Your task to perform on an android device: Search for macbook pro 15 inch on target, select the first entry, add it to the cart, then select checkout. Image 0: 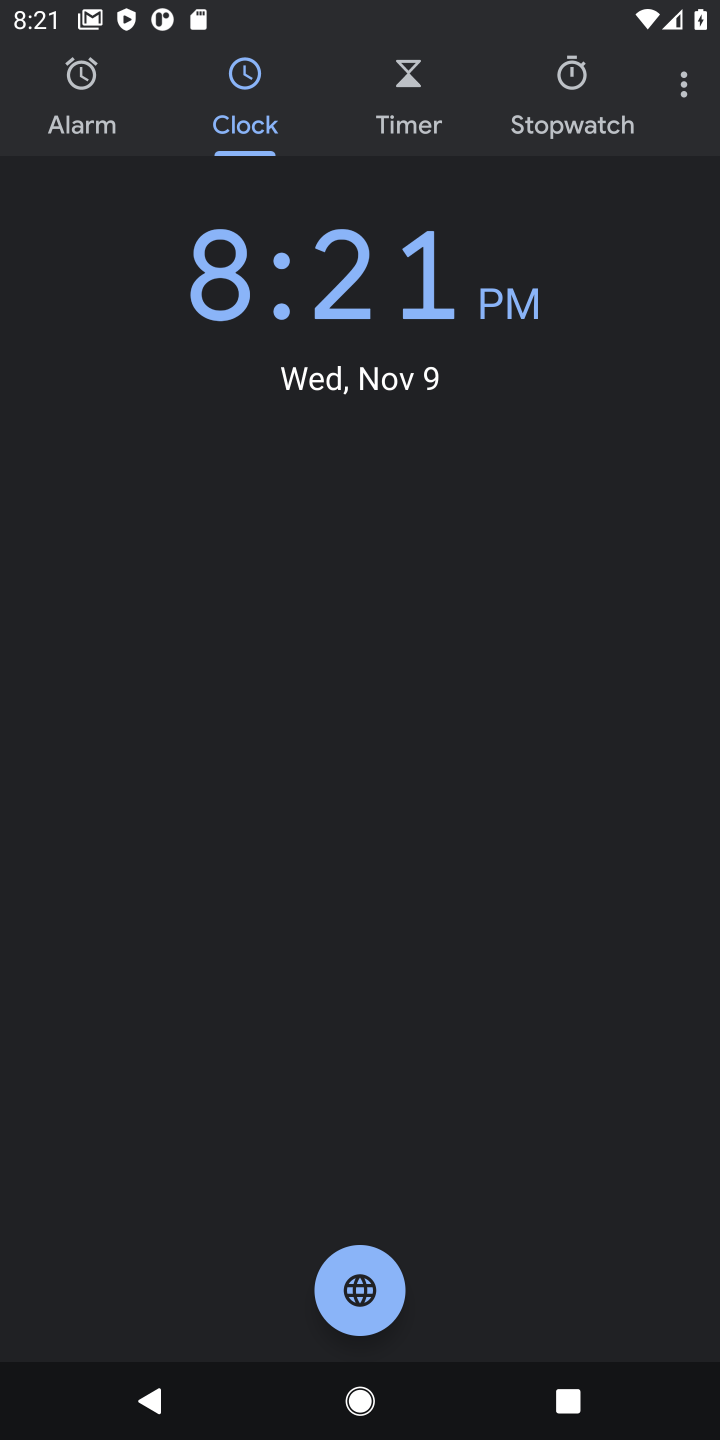
Step 0: press home button
Your task to perform on an android device: Search for macbook pro 15 inch on target, select the first entry, add it to the cart, then select checkout. Image 1: 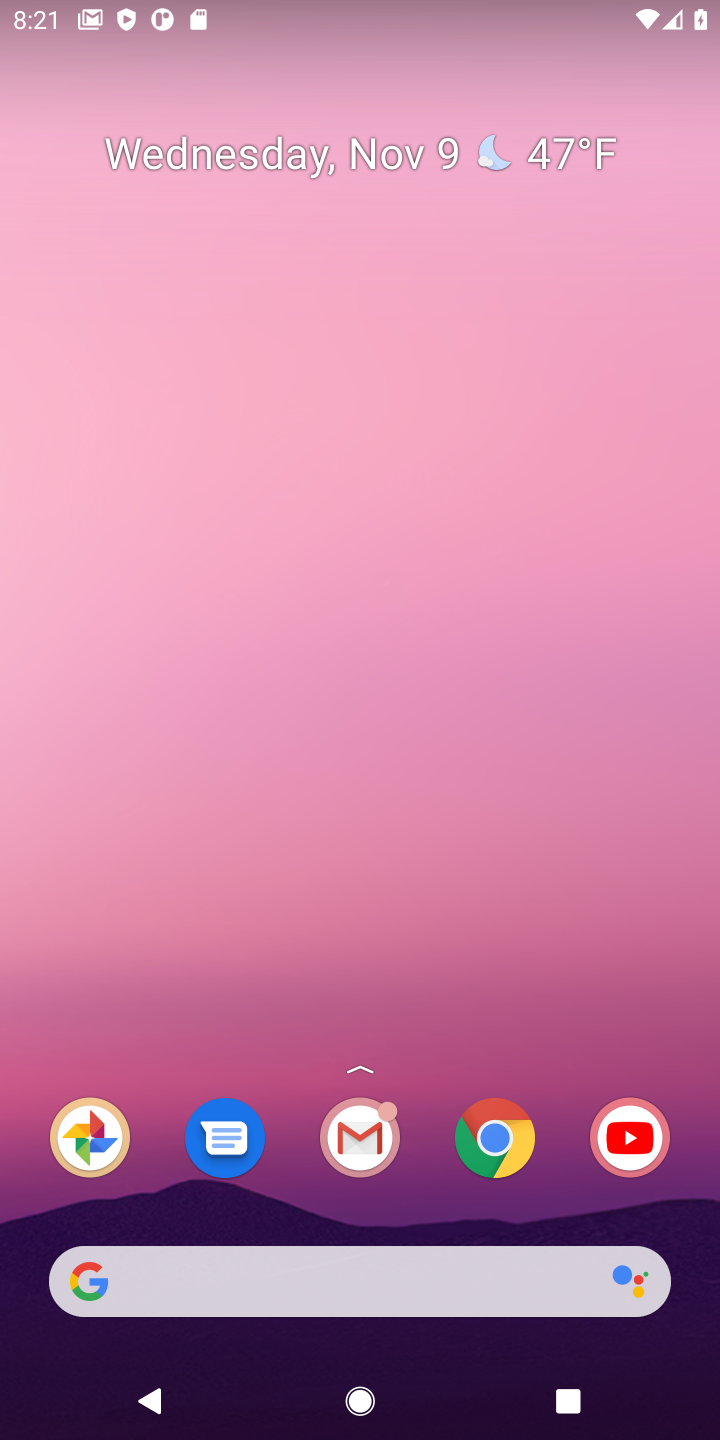
Step 1: drag from (420, 1218) to (442, 0)
Your task to perform on an android device: Search for macbook pro 15 inch on target, select the first entry, add it to the cart, then select checkout. Image 2: 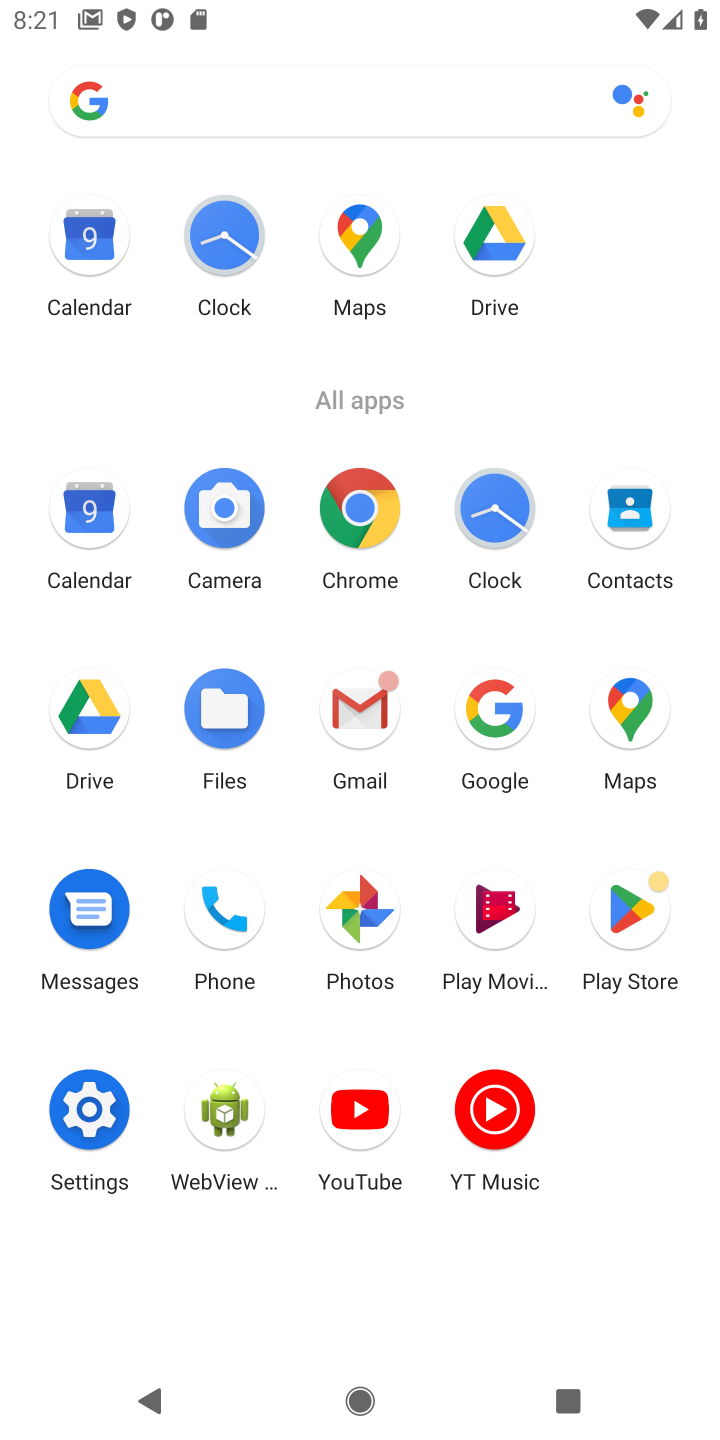
Step 2: click (361, 500)
Your task to perform on an android device: Search for macbook pro 15 inch on target, select the first entry, add it to the cart, then select checkout. Image 3: 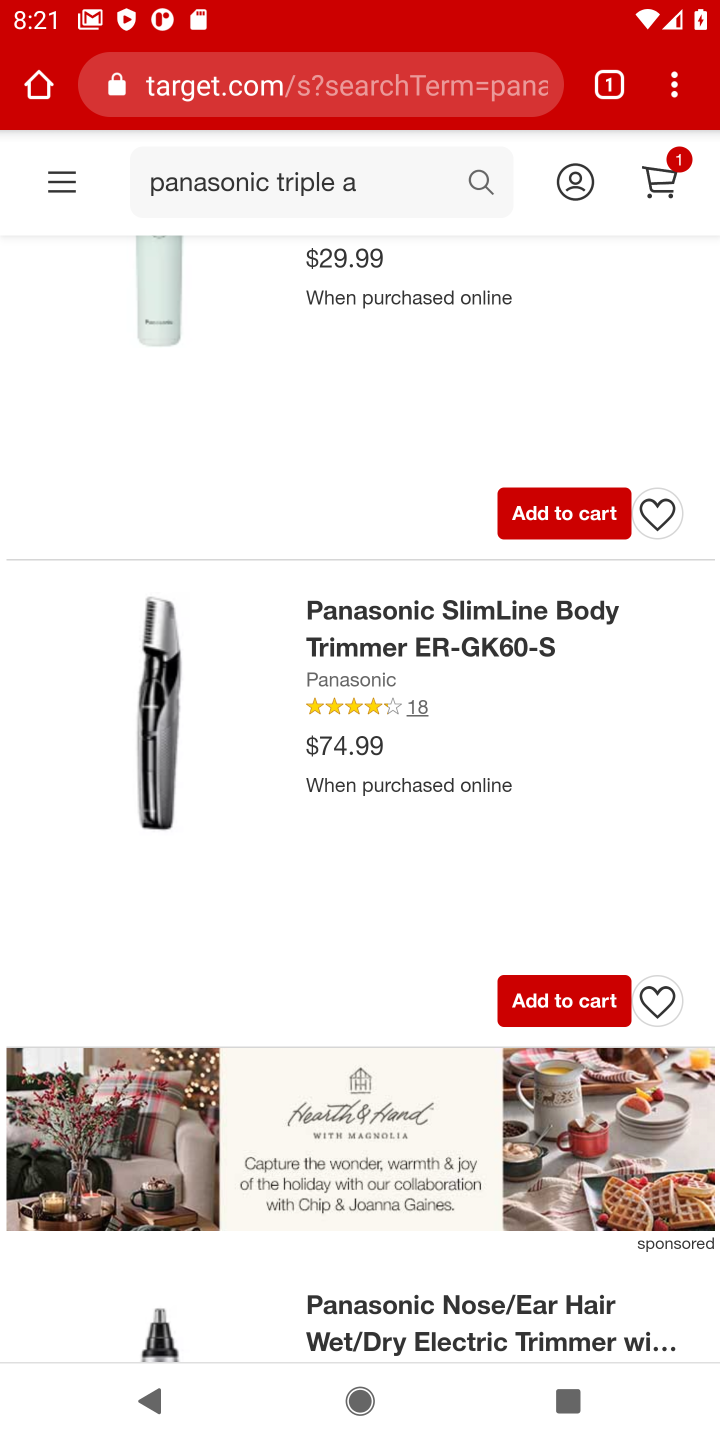
Step 3: click (370, 96)
Your task to perform on an android device: Search for macbook pro 15 inch on target, select the first entry, add it to the cart, then select checkout. Image 4: 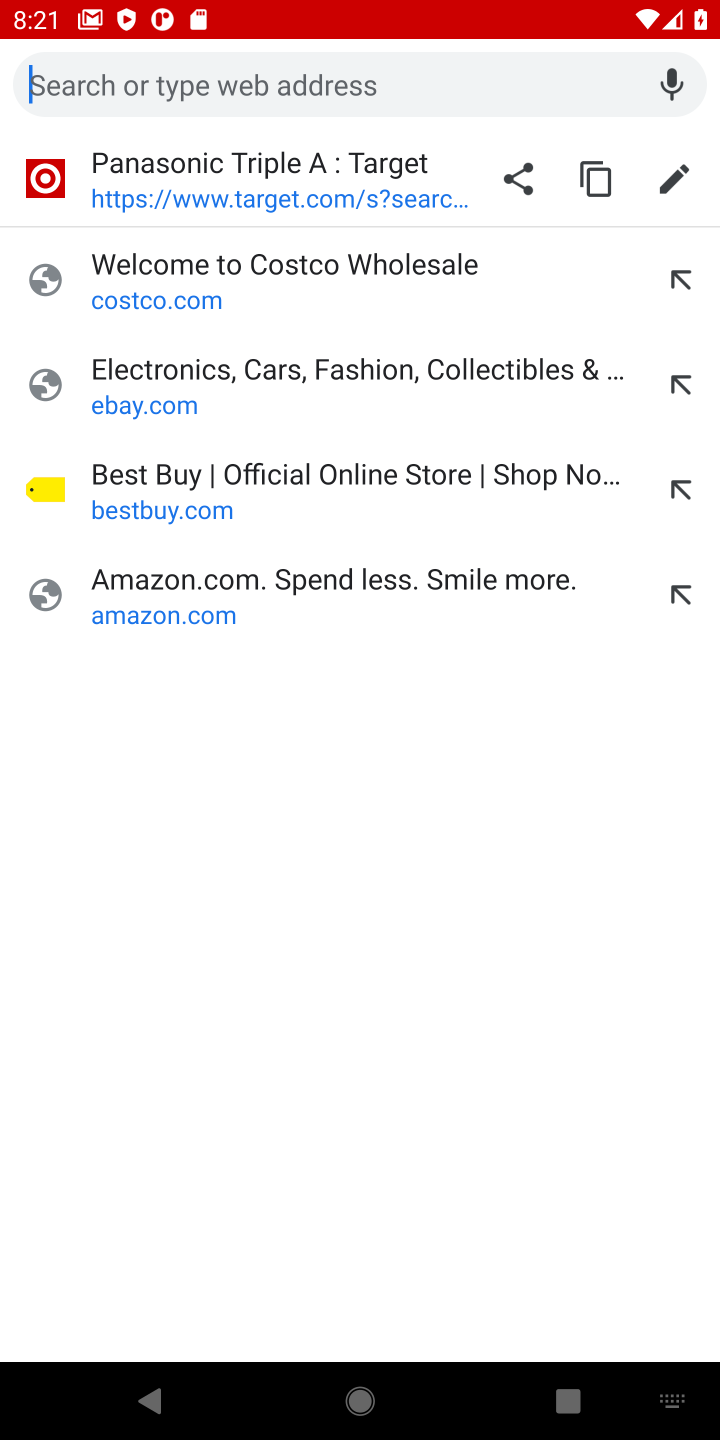
Step 4: type "target.com"
Your task to perform on an android device: Search for macbook pro 15 inch on target, select the first entry, add it to the cart, then select checkout. Image 5: 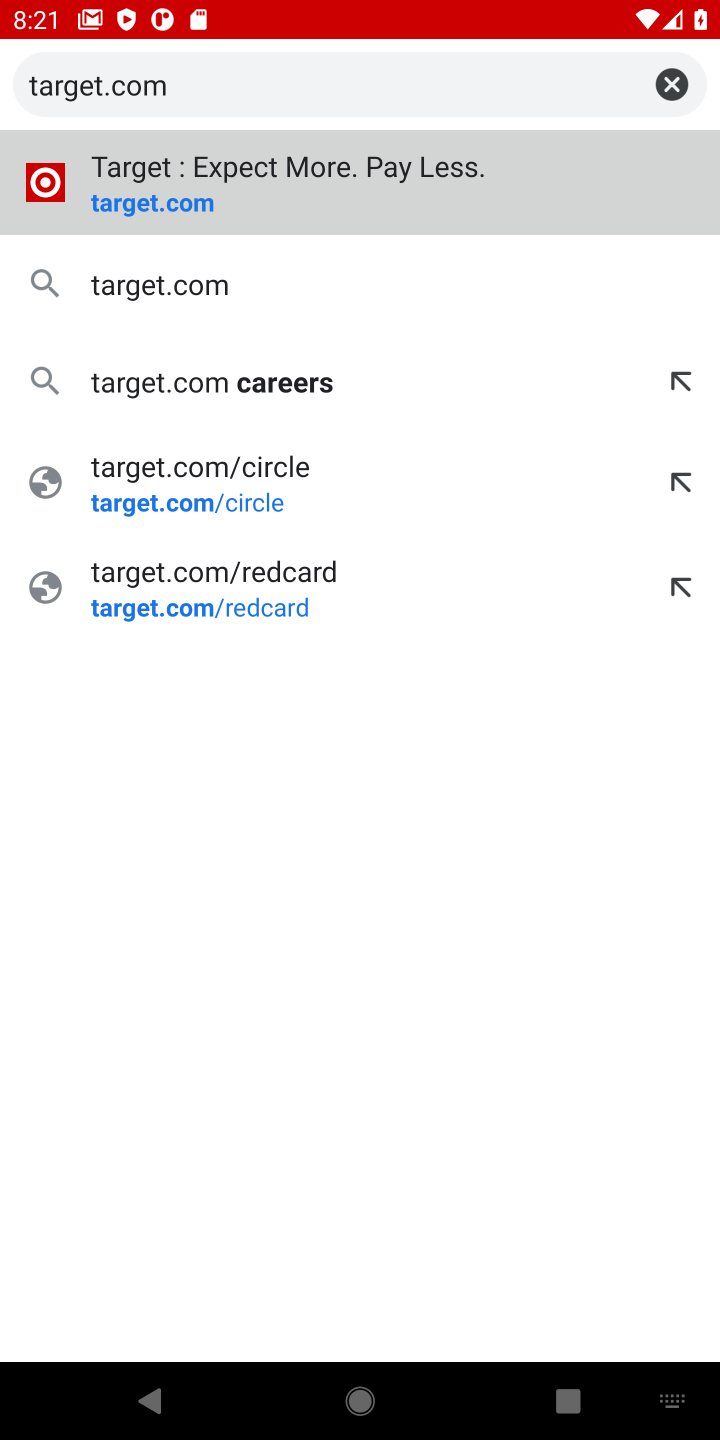
Step 5: press enter
Your task to perform on an android device: Search for macbook pro 15 inch on target, select the first entry, add it to the cart, then select checkout. Image 6: 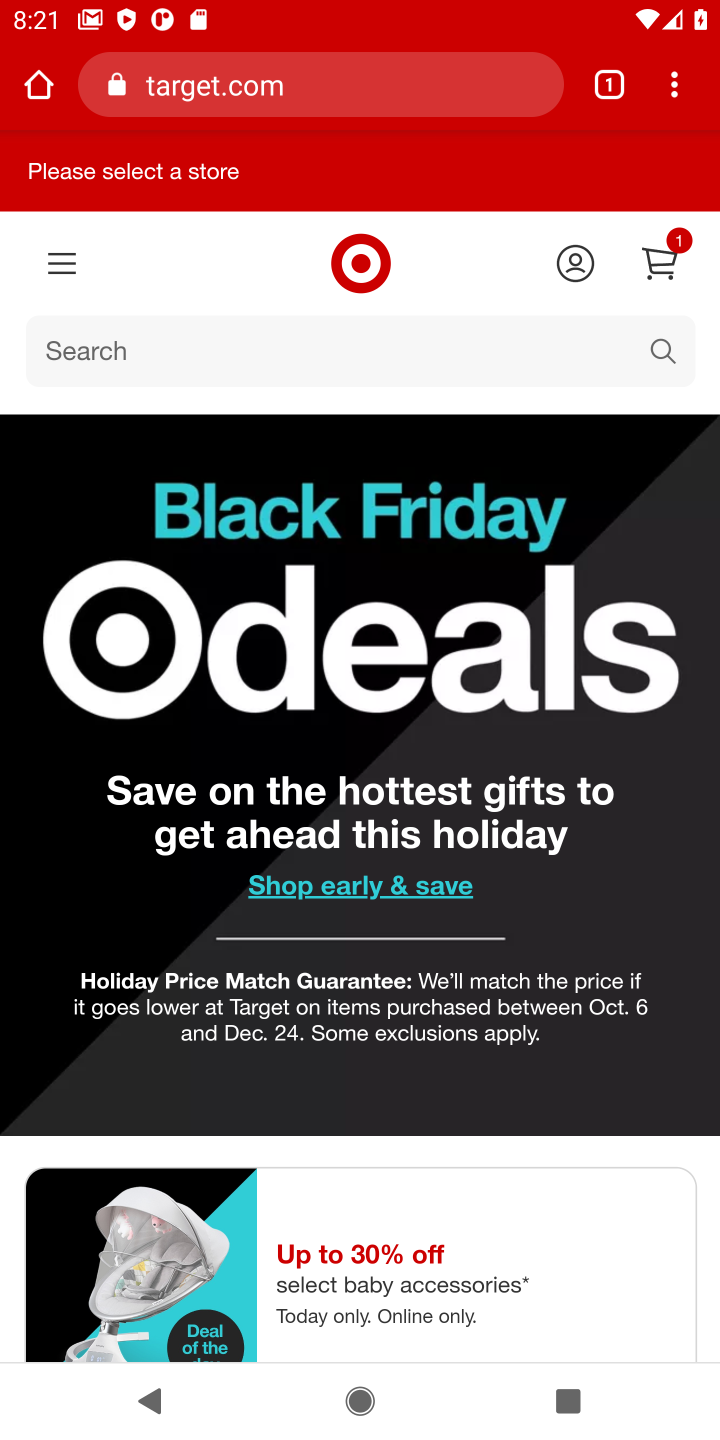
Step 6: click (103, 344)
Your task to perform on an android device: Search for macbook pro 15 inch on target, select the first entry, add it to the cart, then select checkout. Image 7: 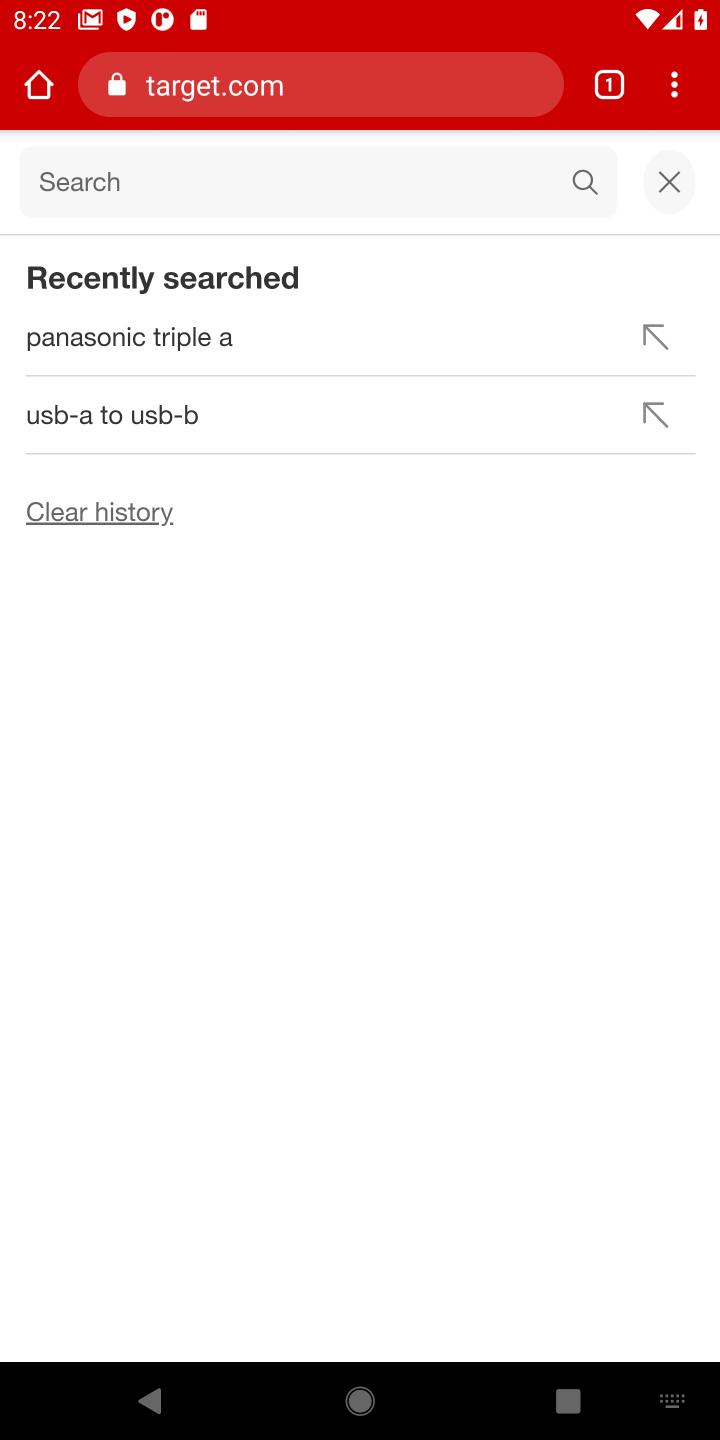
Step 7: type "macbook pro 15 inch"
Your task to perform on an android device: Search for macbook pro 15 inch on target, select the first entry, add it to the cart, then select checkout. Image 8: 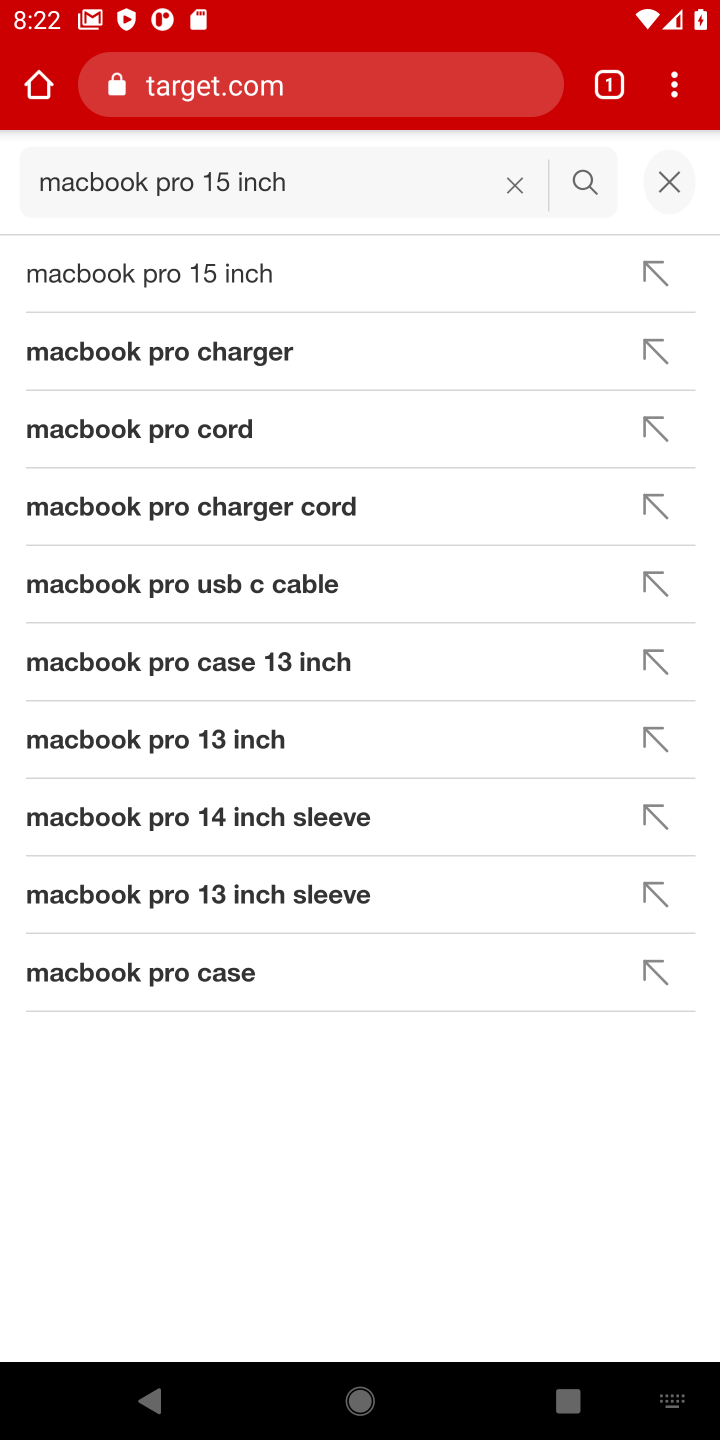
Step 8: press enter
Your task to perform on an android device: Search for macbook pro 15 inch on target, select the first entry, add it to the cart, then select checkout. Image 9: 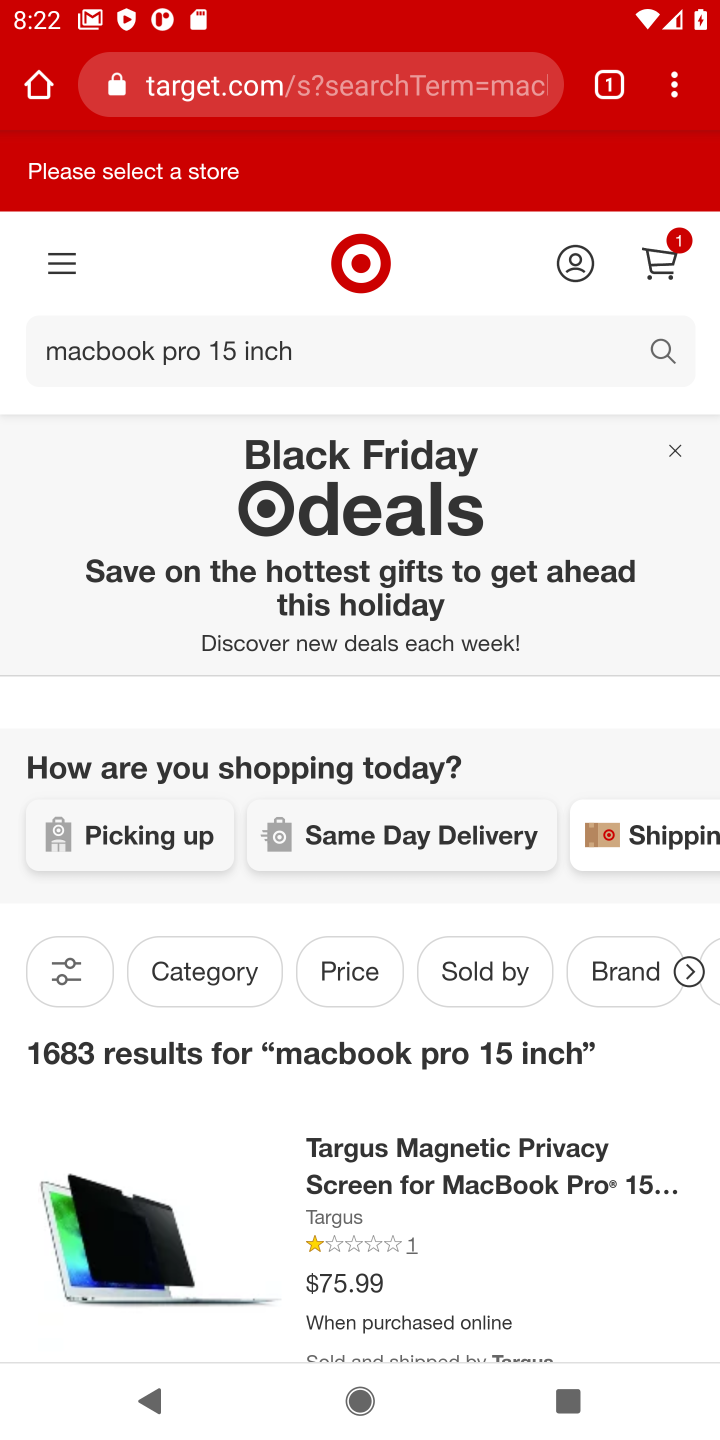
Step 9: task complete